Your task to perform on an android device: What's the weather going to be this weekend? Image 0: 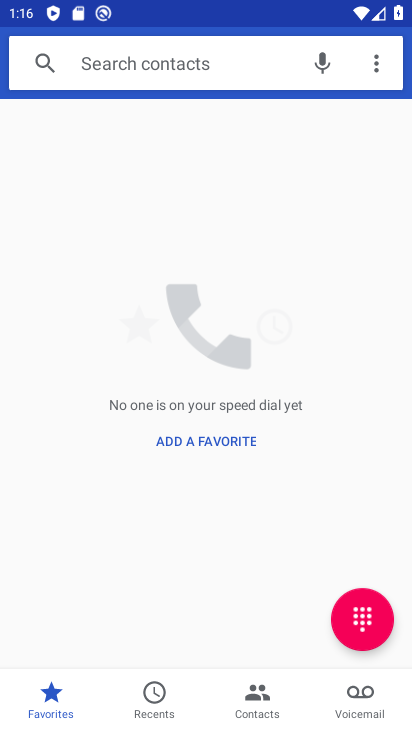
Step 0: press home button
Your task to perform on an android device: What's the weather going to be this weekend? Image 1: 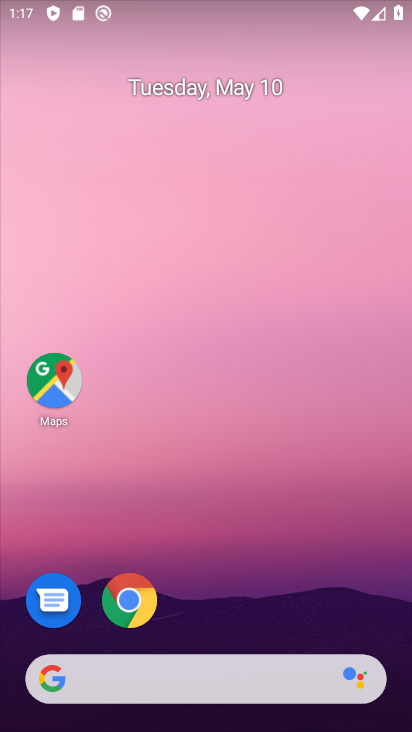
Step 1: drag from (253, 608) to (319, 131)
Your task to perform on an android device: What's the weather going to be this weekend? Image 2: 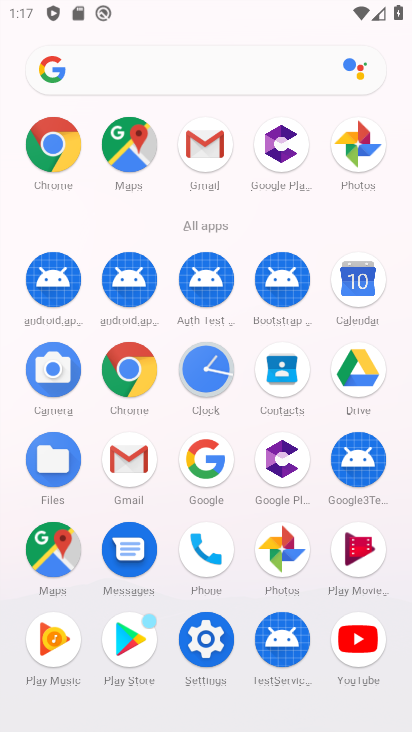
Step 2: click (211, 459)
Your task to perform on an android device: What's the weather going to be this weekend? Image 3: 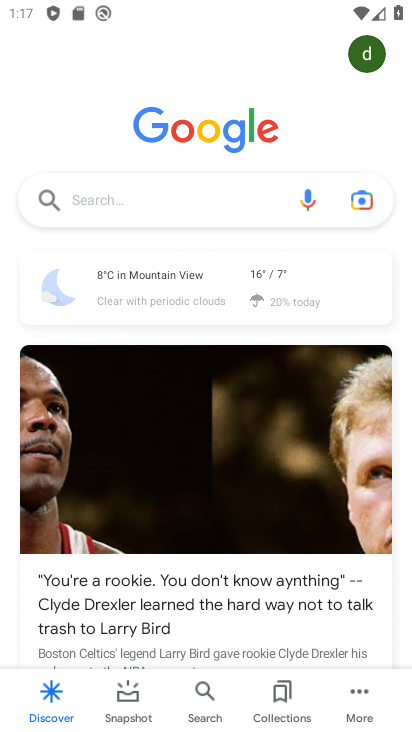
Step 3: click (151, 189)
Your task to perform on an android device: What's the weather going to be this weekend? Image 4: 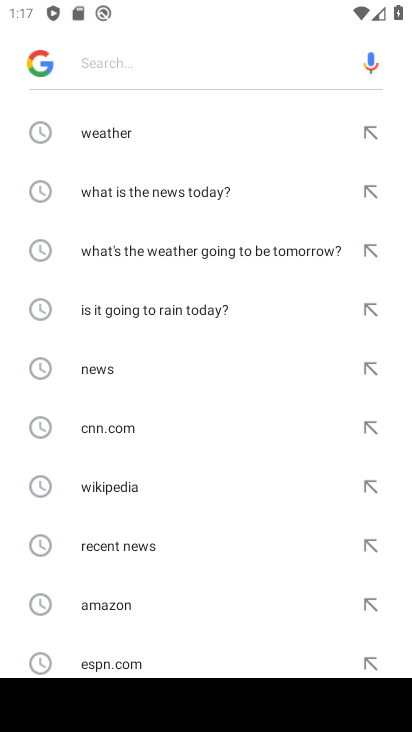
Step 4: type "whats the weather going to be this weekend"
Your task to perform on an android device: What's the weather going to be this weekend? Image 5: 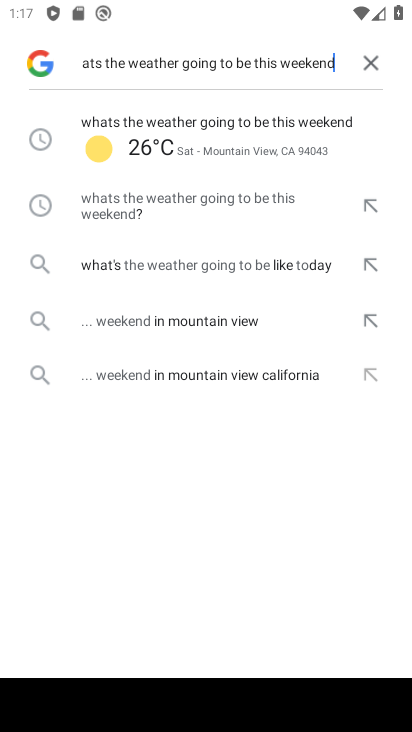
Step 5: click (187, 139)
Your task to perform on an android device: What's the weather going to be this weekend? Image 6: 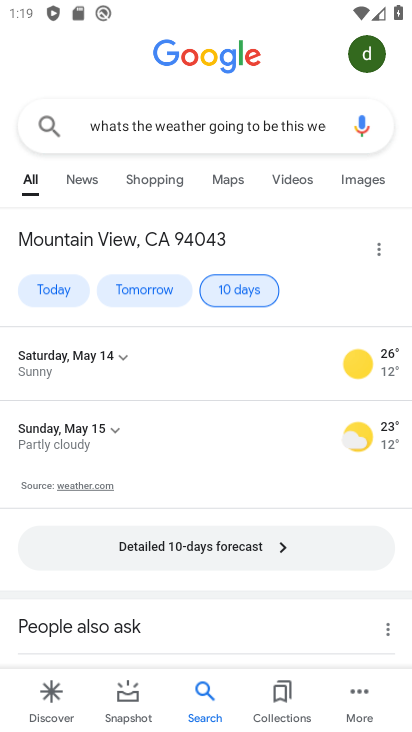
Step 6: task complete